Your task to perform on an android device: Search for Italian restaurants on Maps Image 0: 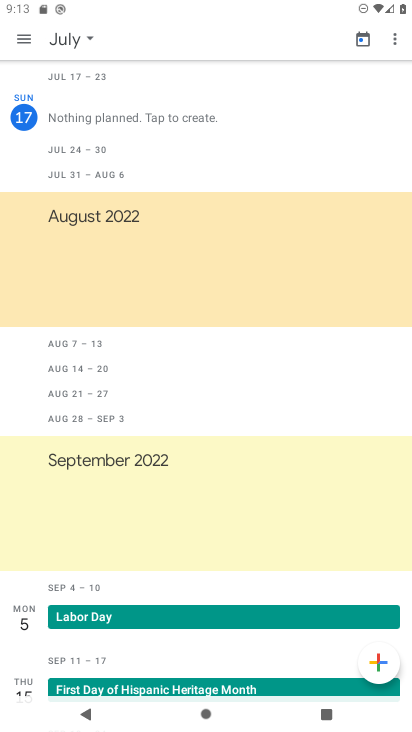
Step 0: press home button
Your task to perform on an android device: Search for Italian restaurants on Maps Image 1: 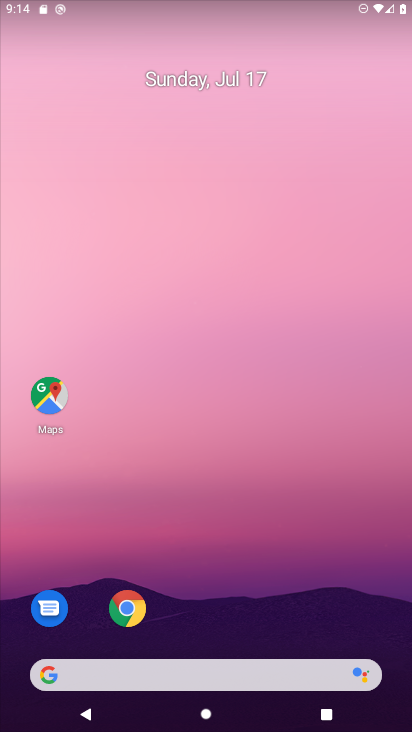
Step 1: click (48, 398)
Your task to perform on an android device: Search for Italian restaurants on Maps Image 2: 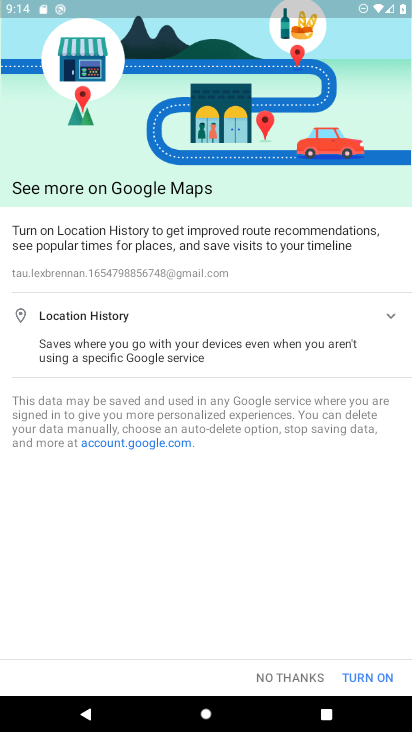
Step 2: click (306, 680)
Your task to perform on an android device: Search for Italian restaurants on Maps Image 3: 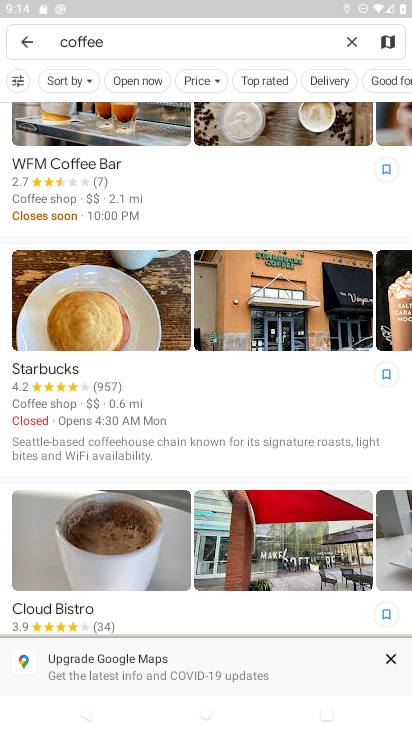
Step 3: click (351, 42)
Your task to perform on an android device: Search for Italian restaurants on Maps Image 4: 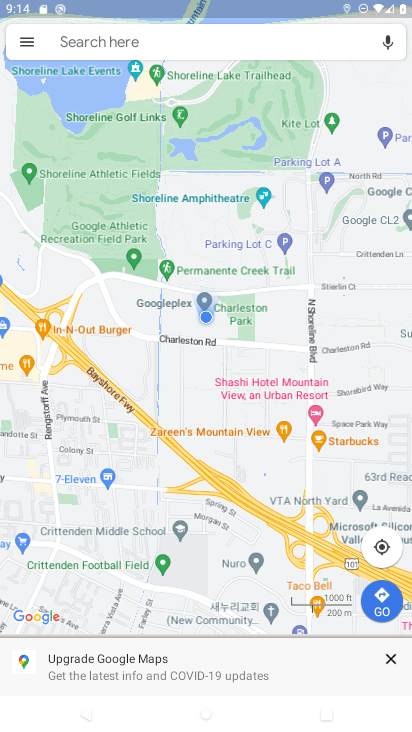
Step 4: click (268, 44)
Your task to perform on an android device: Search for Italian restaurants on Maps Image 5: 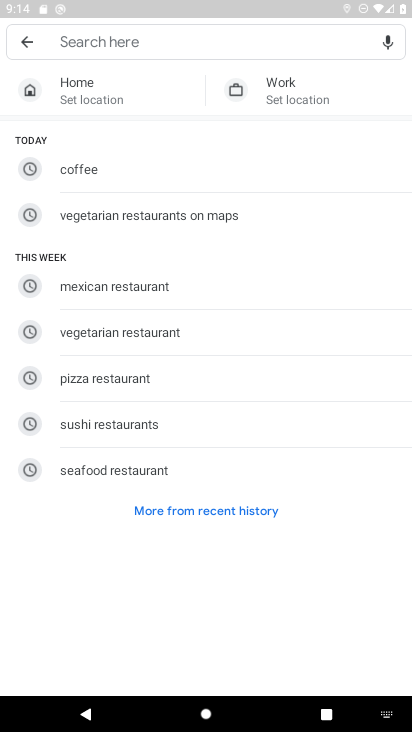
Step 5: type "Italian restaurants"
Your task to perform on an android device: Search for Italian restaurants on Maps Image 6: 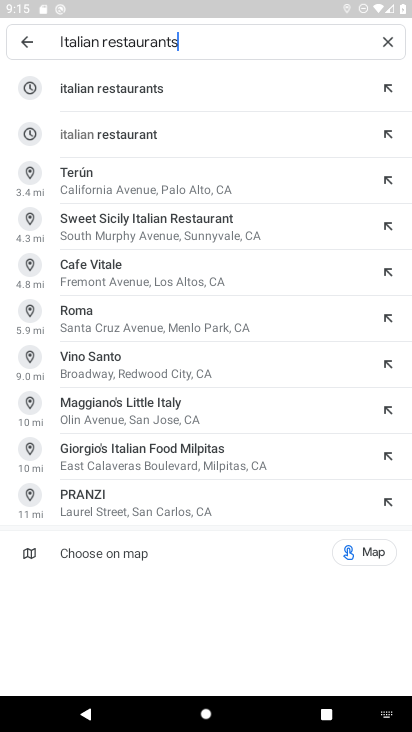
Step 6: click (110, 93)
Your task to perform on an android device: Search for Italian restaurants on Maps Image 7: 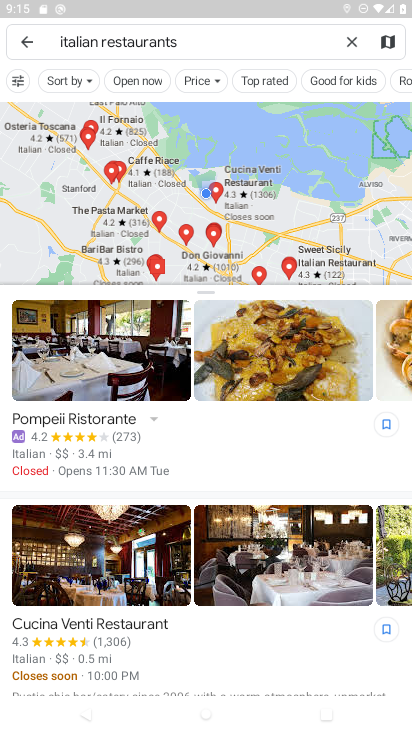
Step 7: task complete